Your task to perform on an android device: Go to notification settings Image 0: 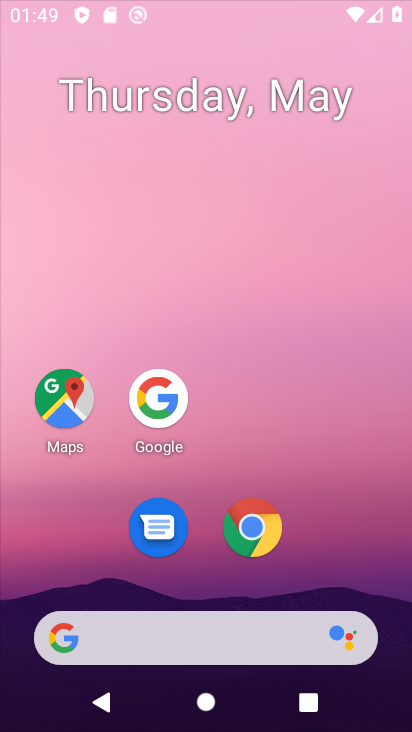
Step 0: click (296, 65)
Your task to perform on an android device: Go to notification settings Image 1: 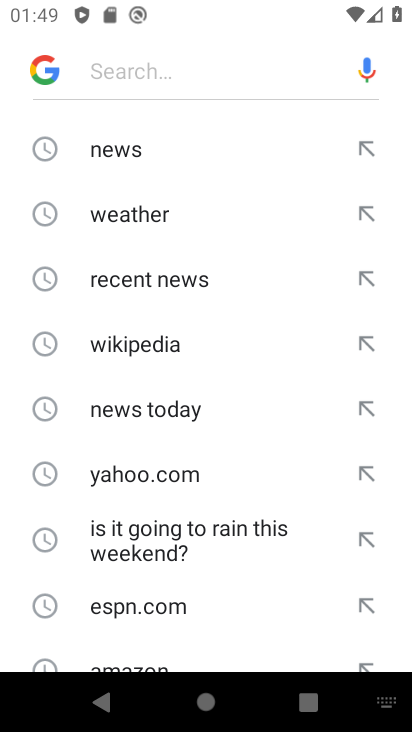
Step 1: press home button
Your task to perform on an android device: Go to notification settings Image 2: 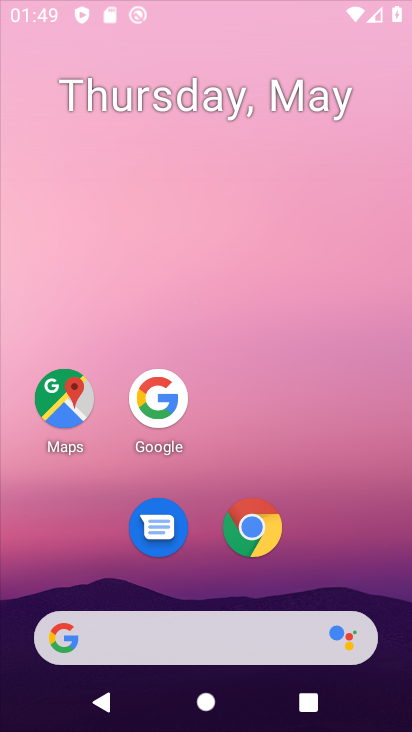
Step 2: drag from (187, 567) to (247, 153)
Your task to perform on an android device: Go to notification settings Image 3: 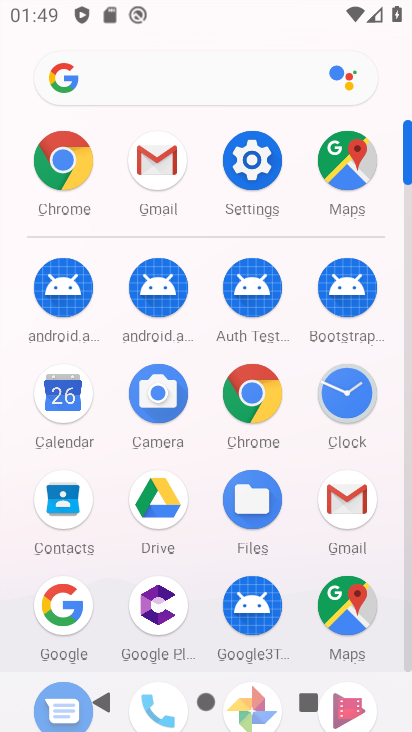
Step 3: click (250, 160)
Your task to perform on an android device: Go to notification settings Image 4: 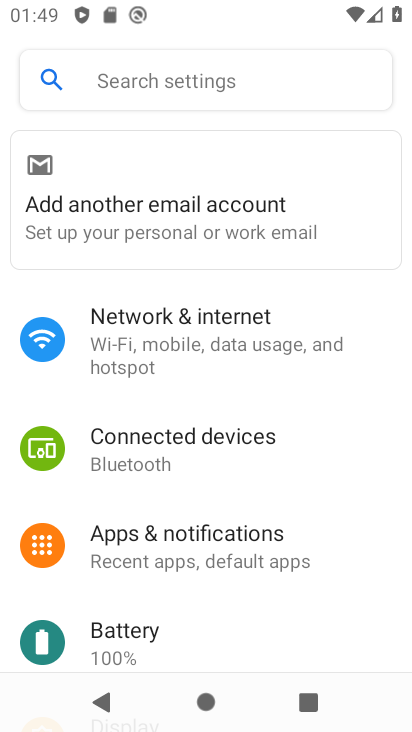
Step 4: click (148, 524)
Your task to perform on an android device: Go to notification settings Image 5: 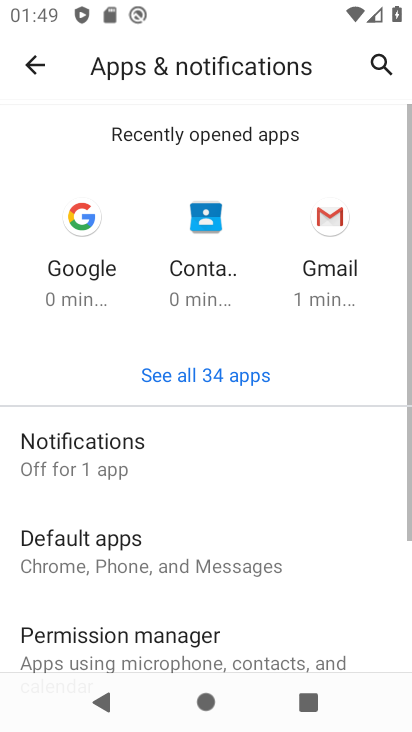
Step 5: click (194, 486)
Your task to perform on an android device: Go to notification settings Image 6: 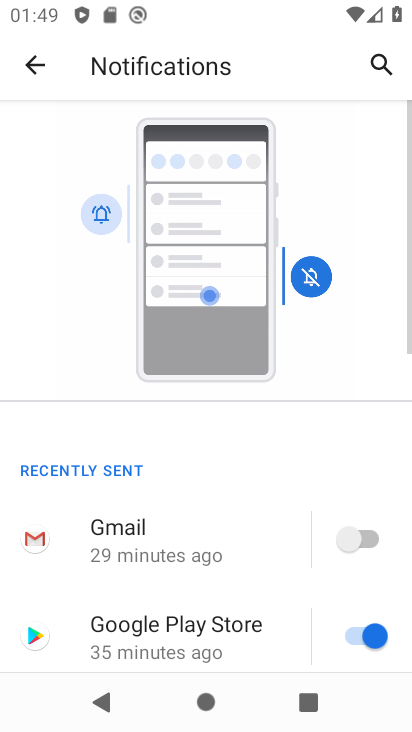
Step 6: drag from (180, 620) to (291, 108)
Your task to perform on an android device: Go to notification settings Image 7: 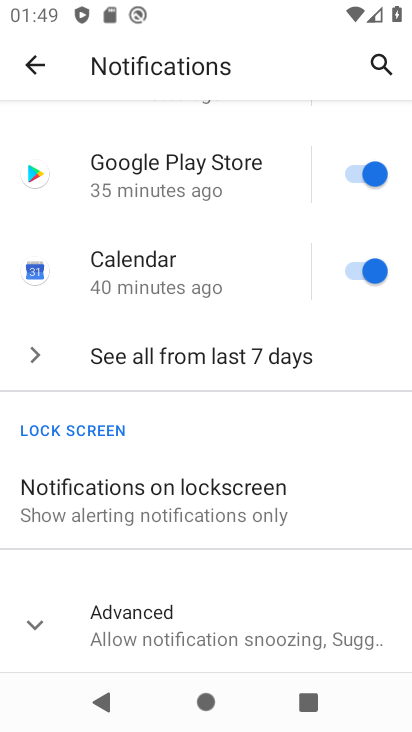
Step 7: drag from (238, 555) to (260, 78)
Your task to perform on an android device: Go to notification settings Image 8: 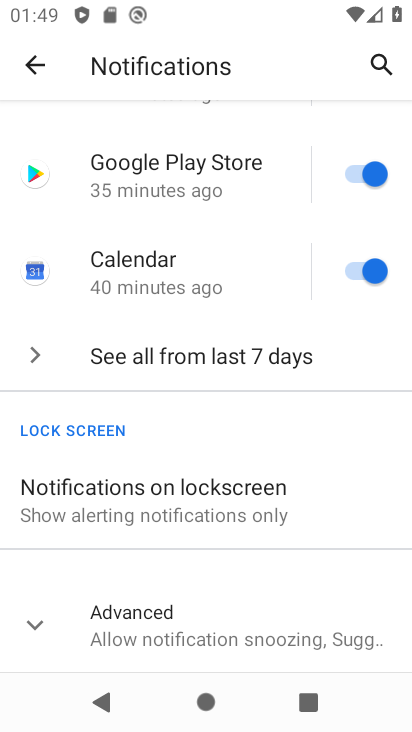
Step 8: click (141, 636)
Your task to perform on an android device: Go to notification settings Image 9: 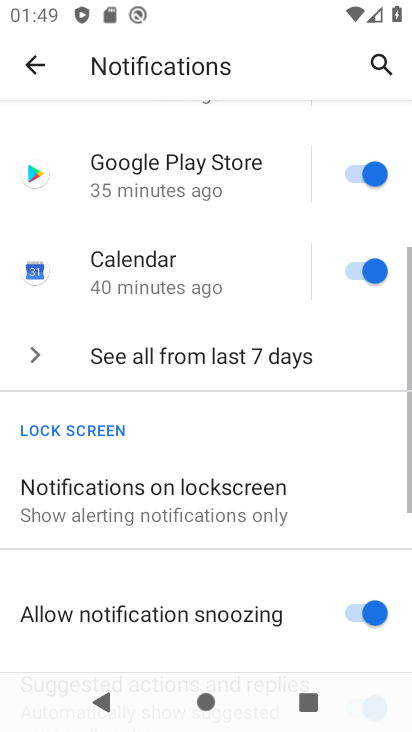
Step 9: task complete